Your task to perform on an android device: change text size in settings app Image 0: 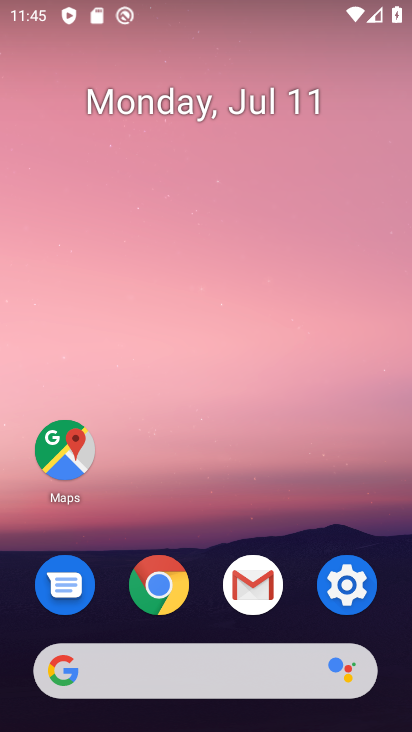
Step 0: click (360, 597)
Your task to perform on an android device: change text size in settings app Image 1: 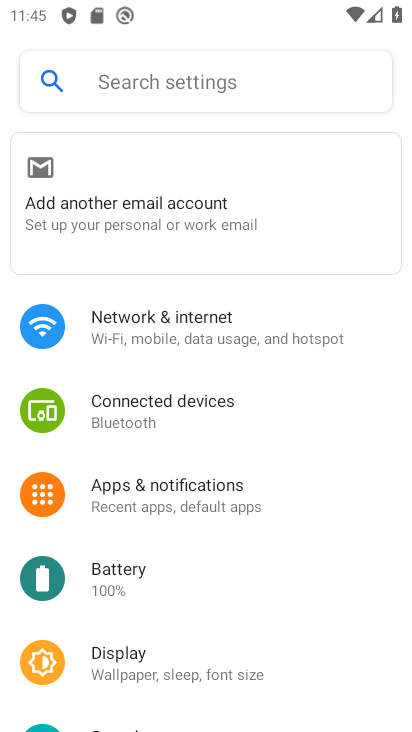
Step 1: click (143, 93)
Your task to perform on an android device: change text size in settings app Image 2: 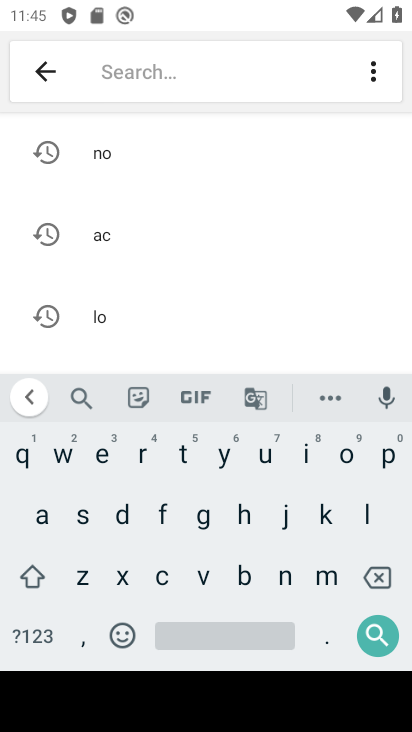
Step 2: click (74, 517)
Your task to perform on an android device: change text size in settings app Image 3: 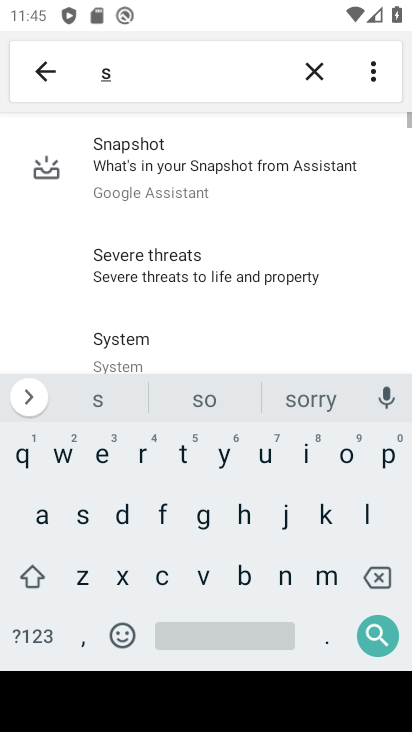
Step 3: click (306, 451)
Your task to perform on an android device: change text size in settings app Image 4: 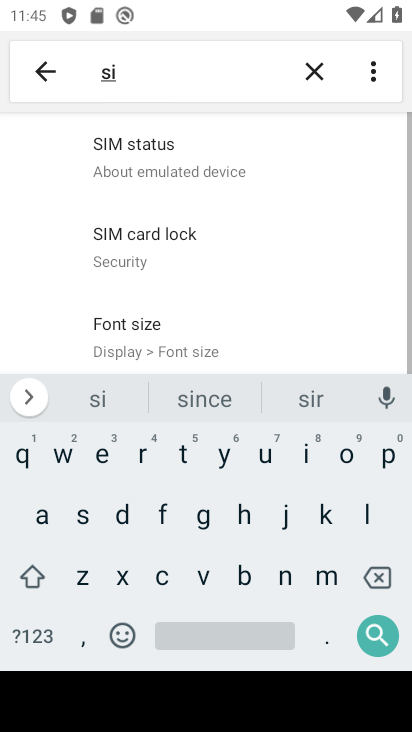
Step 4: click (85, 576)
Your task to perform on an android device: change text size in settings app Image 5: 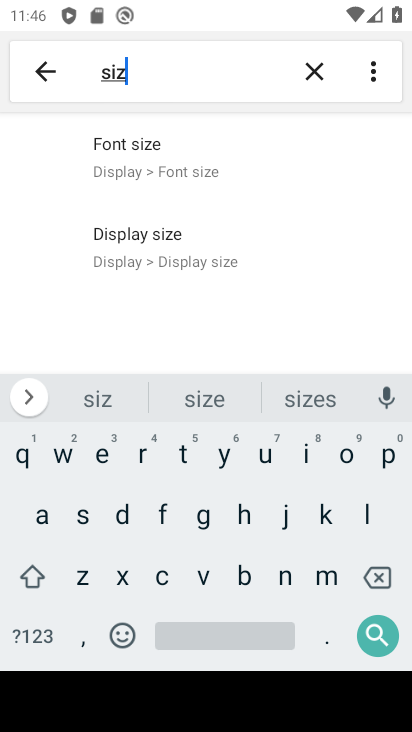
Step 5: click (185, 164)
Your task to perform on an android device: change text size in settings app Image 6: 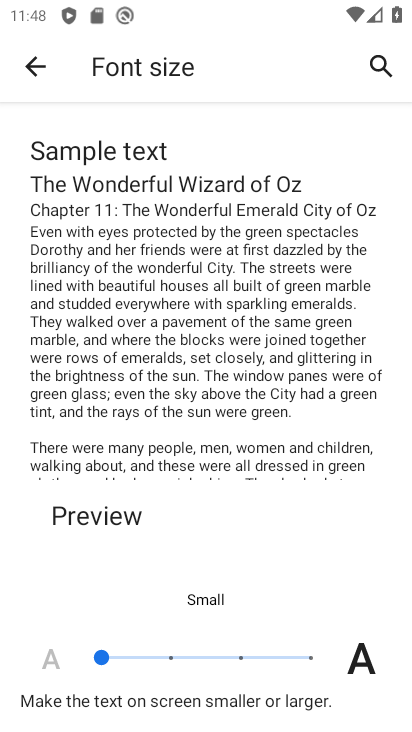
Step 6: task complete